Your task to perform on an android device: change keyboard looks Image 0: 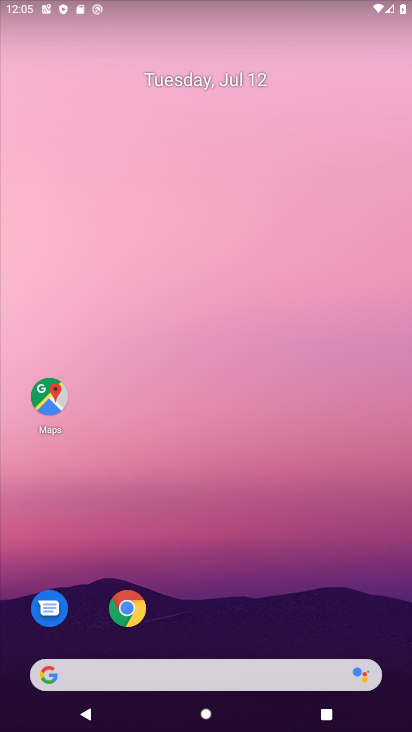
Step 0: drag from (237, 9) to (247, 611)
Your task to perform on an android device: change keyboard looks Image 1: 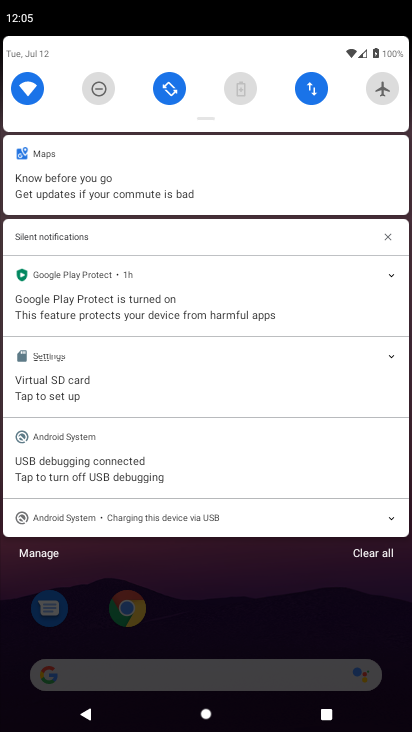
Step 1: drag from (208, 63) to (219, 634)
Your task to perform on an android device: change keyboard looks Image 2: 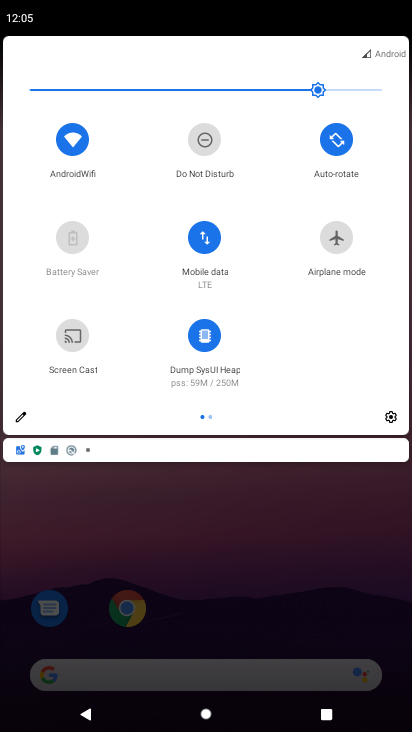
Step 2: click (391, 410)
Your task to perform on an android device: change keyboard looks Image 3: 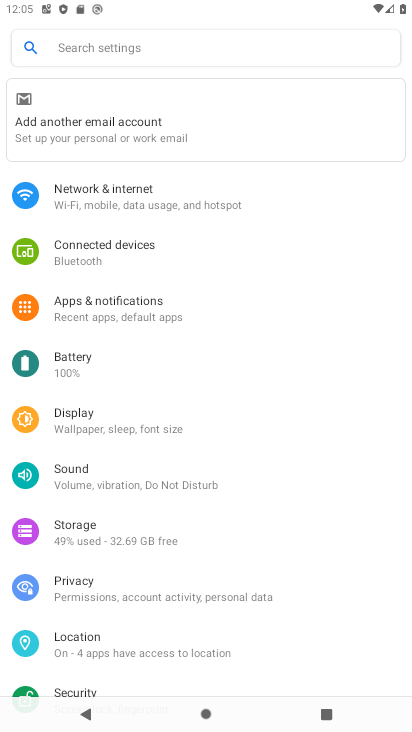
Step 3: drag from (107, 609) to (182, 117)
Your task to perform on an android device: change keyboard looks Image 4: 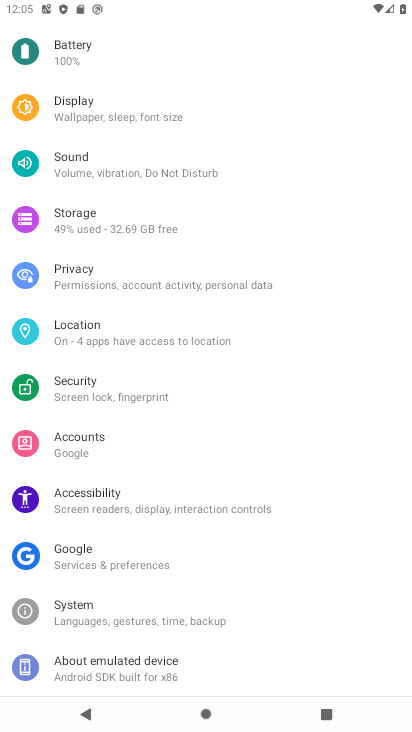
Step 4: drag from (110, 612) to (172, 243)
Your task to perform on an android device: change keyboard looks Image 5: 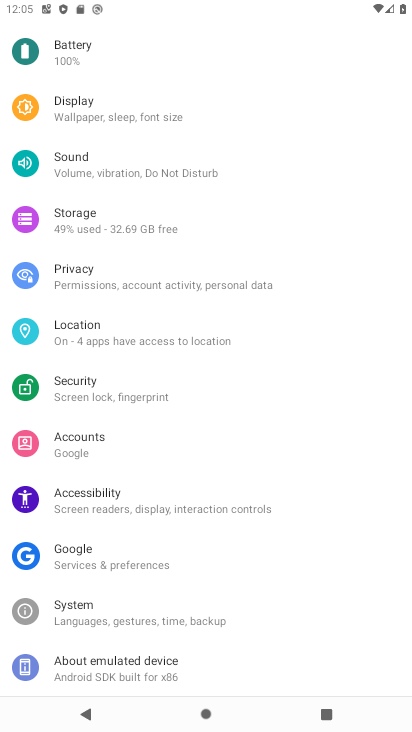
Step 5: click (122, 662)
Your task to perform on an android device: change keyboard looks Image 6: 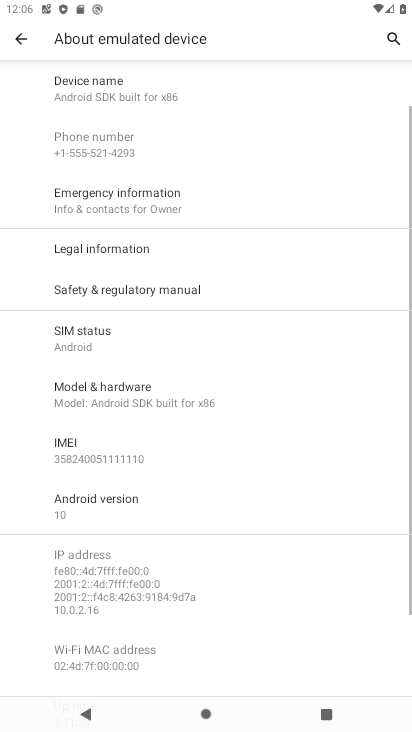
Step 6: click (32, 42)
Your task to perform on an android device: change keyboard looks Image 7: 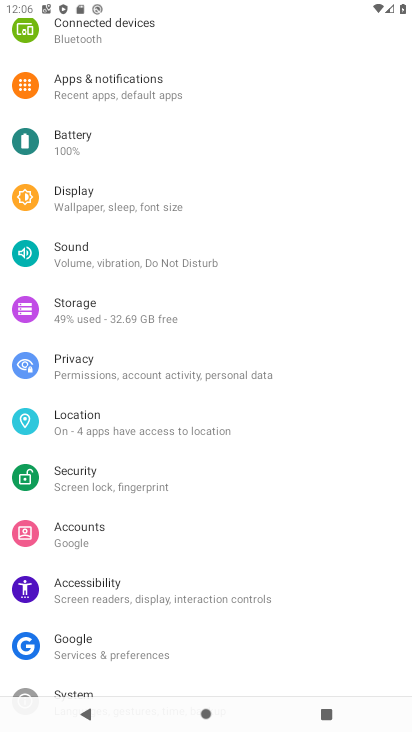
Step 7: click (72, 687)
Your task to perform on an android device: change keyboard looks Image 8: 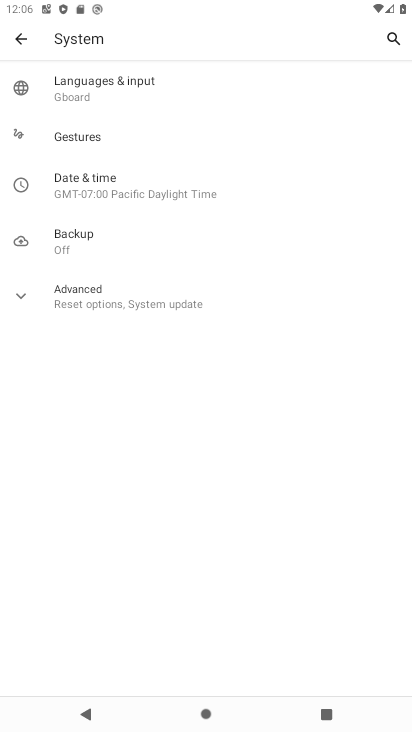
Step 8: click (102, 67)
Your task to perform on an android device: change keyboard looks Image 9: 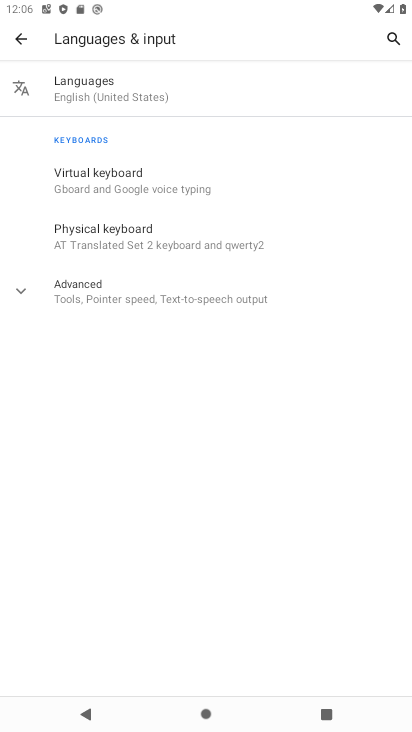
Step 9: click (139, 175)
Your task to perform on an android device: change keyboard looks Image 10: 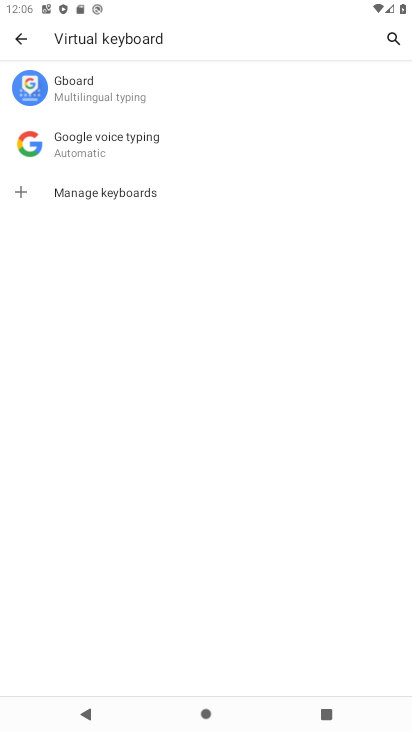
Step 10: click (121, 103)
Your task to perform on an android device: change keyboard looks Image 11: 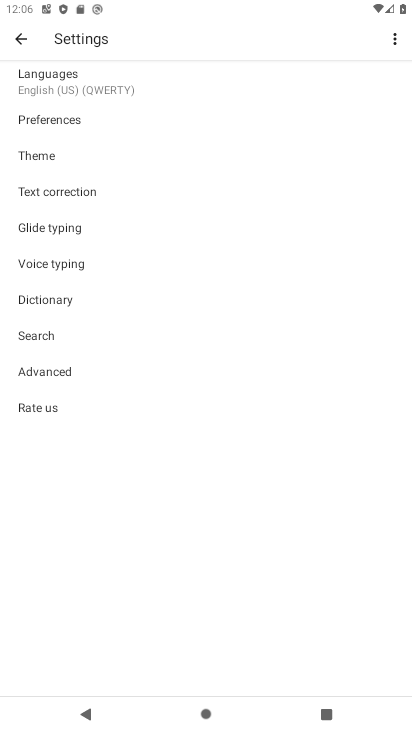
Step 11: click (66, 151)
Your task to perform on an android device: change keyboard looks Image 12: 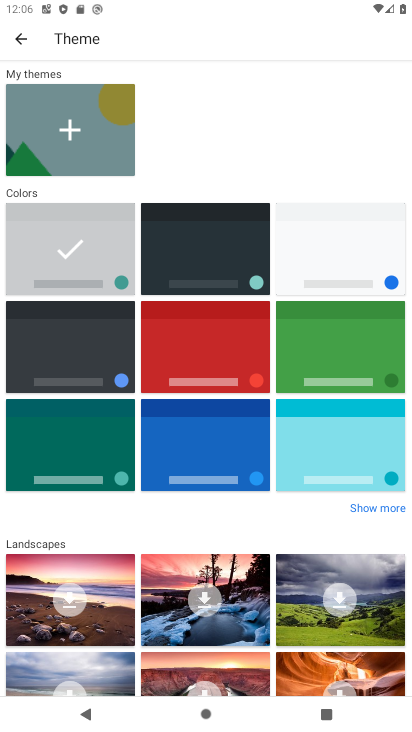
Step 12: click (192, 457)
Your task to perform on an android device: change keyboard looks Image 13: 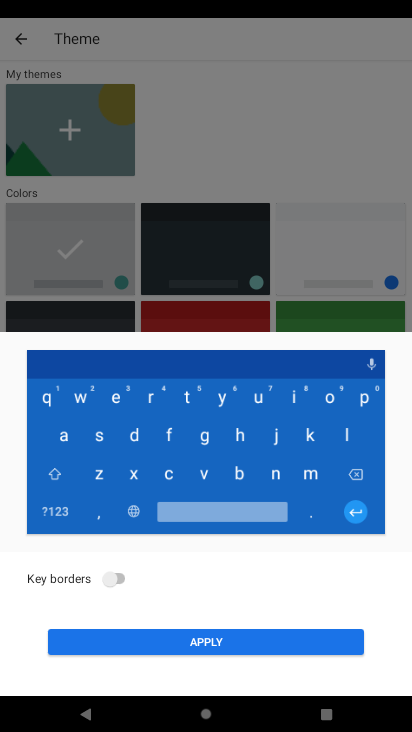
Step 13: click (259, 643)
Your task to perform on an android device: change keyboard looks Image 14: 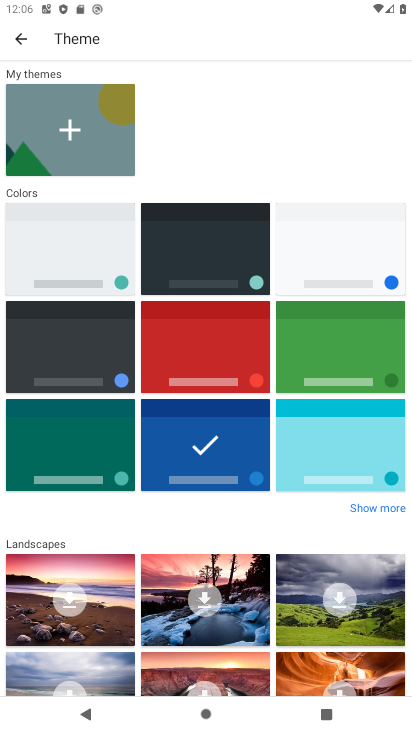
Step 14: task complete